Your task to perform on an android device: Open Google Chrome and click the shortcut for Amazon.com Image 0: 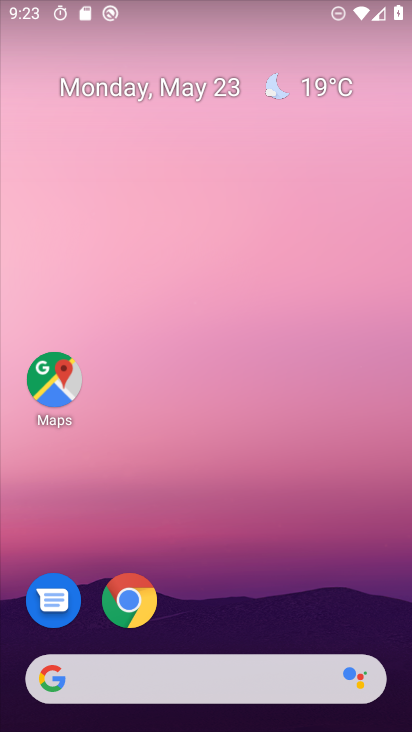
Step 0: press home button
Your task to perform on an android device: Open Google Chrome and click the shortcut for Amazon.com Image 1: 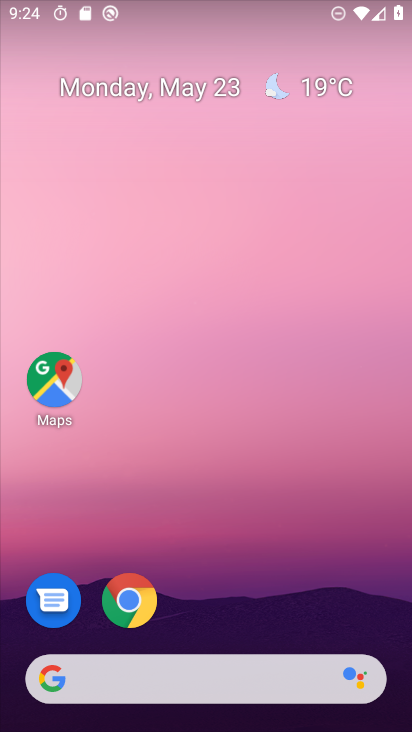
Step 1: drag from (98, 413) to (325, 27)
Your task to perform on an android device: Open Google Chrome and click the shortcut for Amazon.com Image 2: 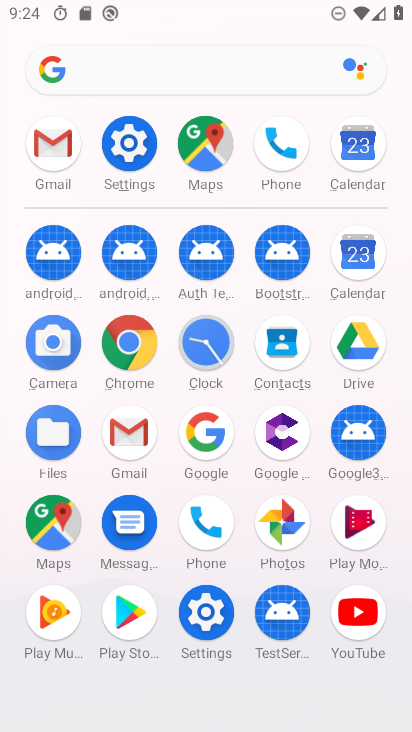
Step 2: click (137, 358)
Your task to perform on an android device: Open Google Chrome and click the shortcut for Amazon.com Image 3: 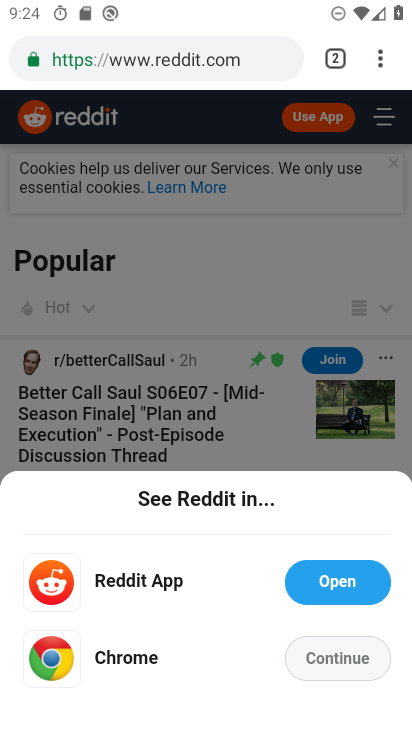
Step 3: click (331, 64)
Your task to perform on an android device: Open Google Chrome and click the shortcut for Amazon.com Image 4: 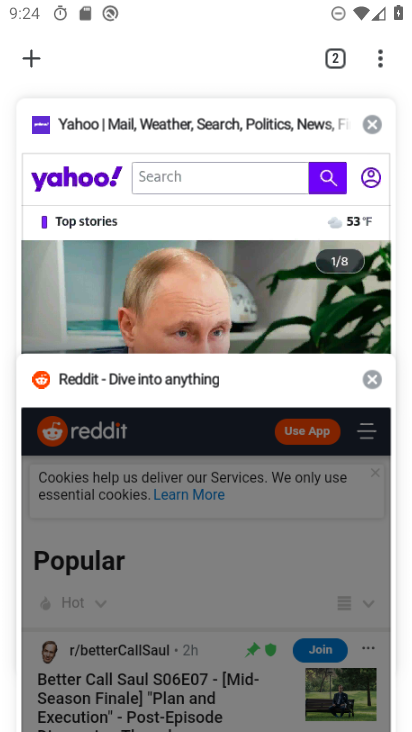
Step 4: click (371, 386)
Your task to perform on an android device: Open Google Chrome and click the shortcut for Amazon.com Image 5: 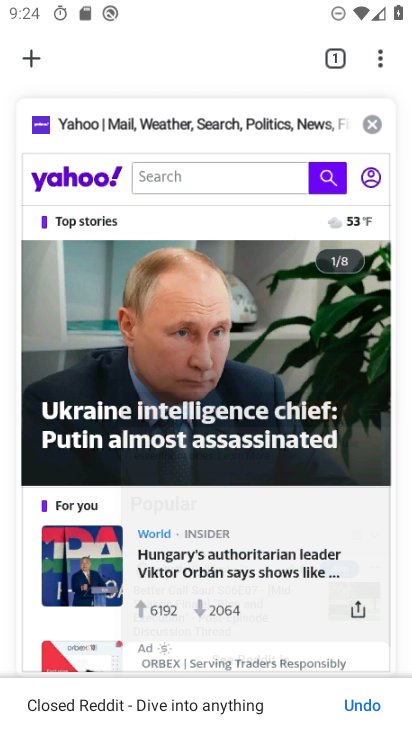
Step 5: click (370, 123)
Your task to perform on an android device: Open Google Chrome and click the shortcut for Amazon.com Image 6: 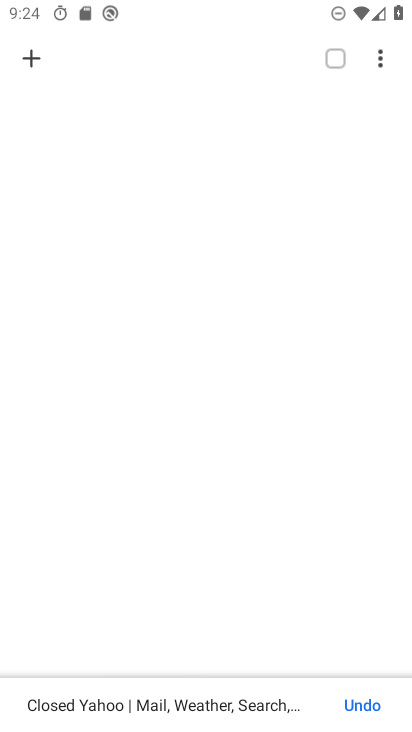
Step 6: click (25, 63)
Your task to perform on an android device: Open Google Chrome and click the shortcut for Amazon.com Image 7: 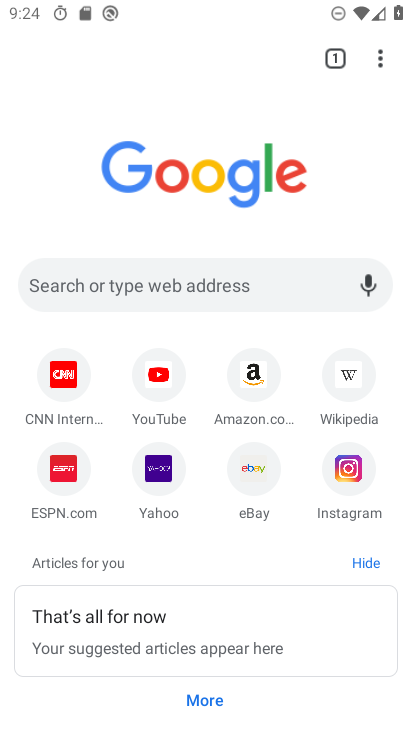
Step 7: click (255, 370)
Your task to perform on an android device: Open Google Chrome and click the shortcut for Amazon.com Image 8: 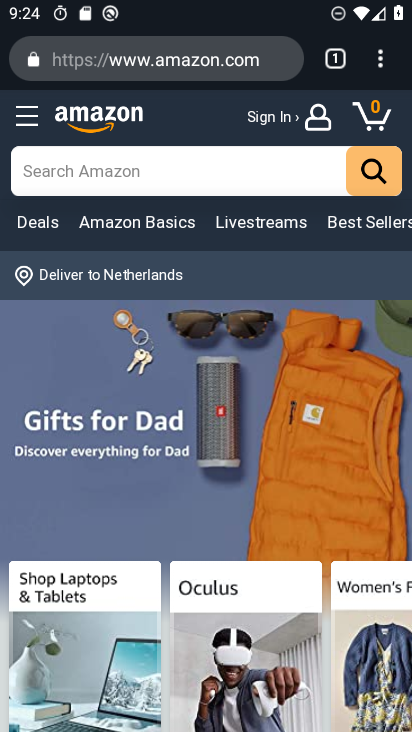
Step 8: task complete